Your task to perform on an android device: Search for pizza restaurants on Maps Image 0: 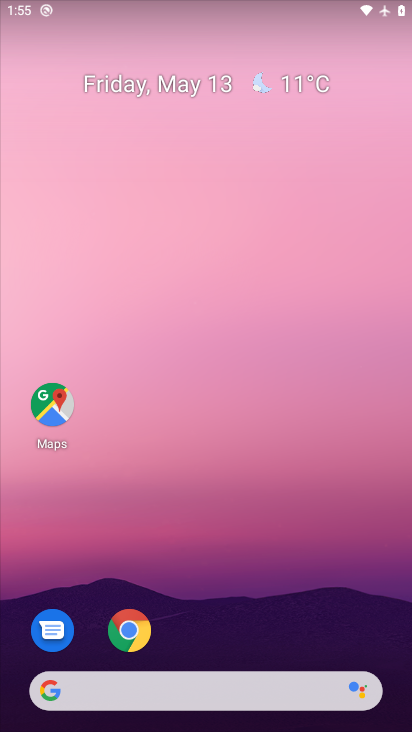
Step 0: drag from (309, 629) to (294, 144)
Your task to perform on an android device: Search for pizza restaurants on Maps Image 1: 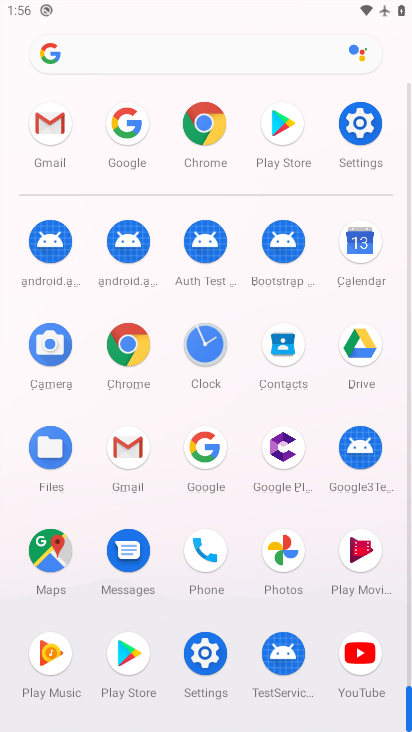
Step 1: click (263, 552)
Your task to perform on an android device: Search for pizza restaurants on Maps Image 2: 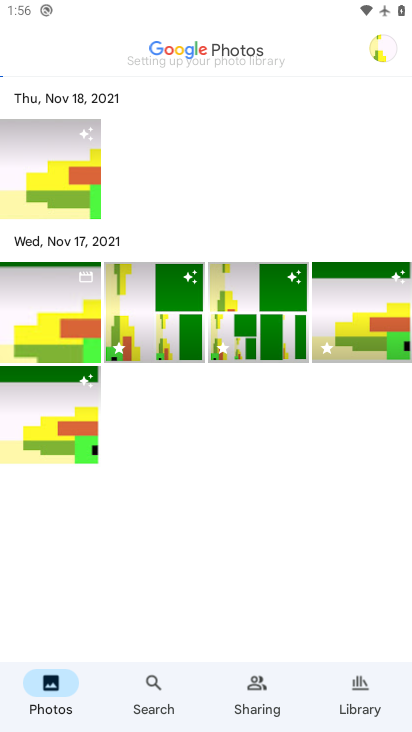
Step 2: click (37, 554)
Your task to perform on an android device: Search for pizza restaurants on Maps Image 3: 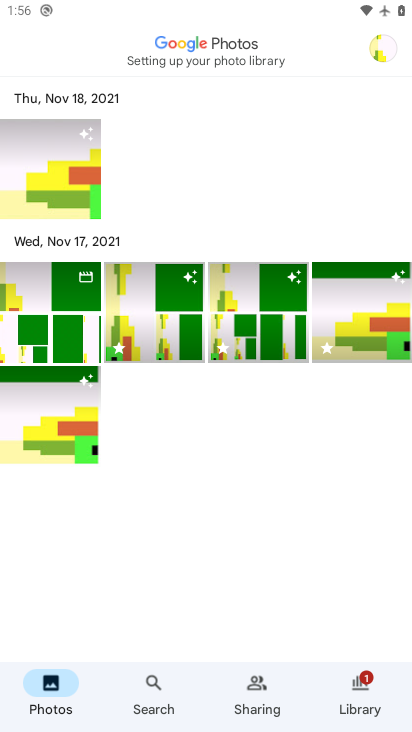
Step 3: press home button
Your task to perform on an android device: Search for pizza restaurants on Maps Image 4: 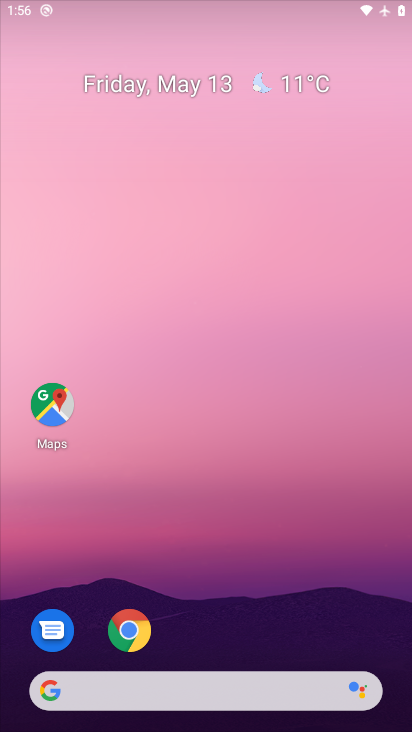
Step 4: drag from (268, 572) to (304, 110)
Your task to perform on an android device: Search for pizza restaurants on Maps Image 5: 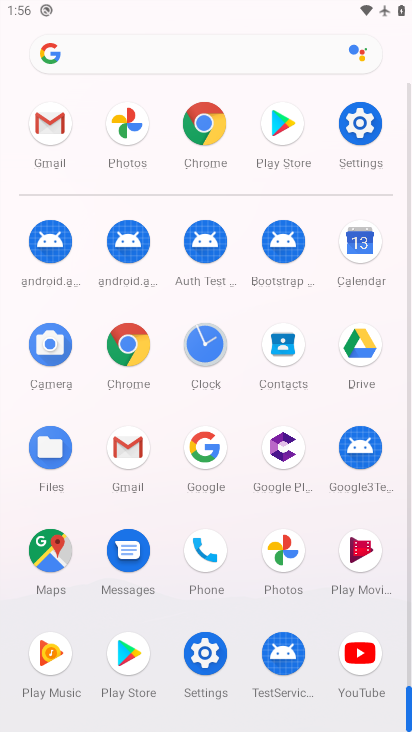
Step 5: click (52, 558)
Your task to perform on an android device: Search for pizza restaurants on Maps Image 6: 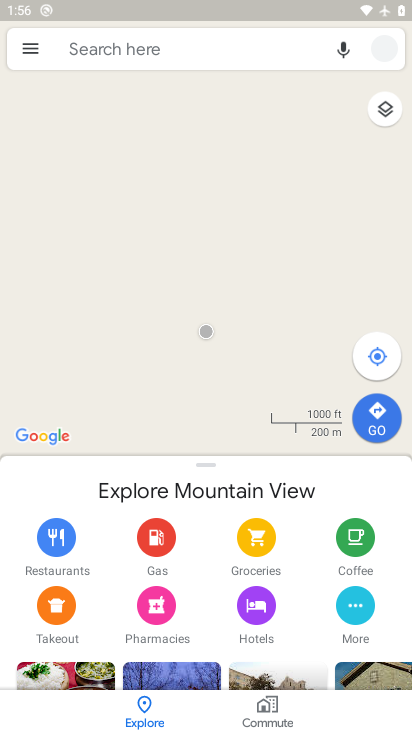
Step 6: click (184, 58)
Your task to perform on an android device: Search for pizza restaurants on Maps Image 7: 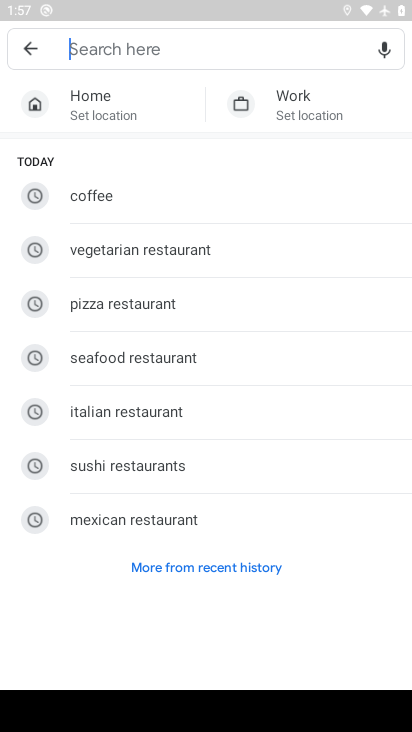
Step 7: click (142, 311)
Your task to perform on an android device: Search for pizza restaurants on Maps Image 8: 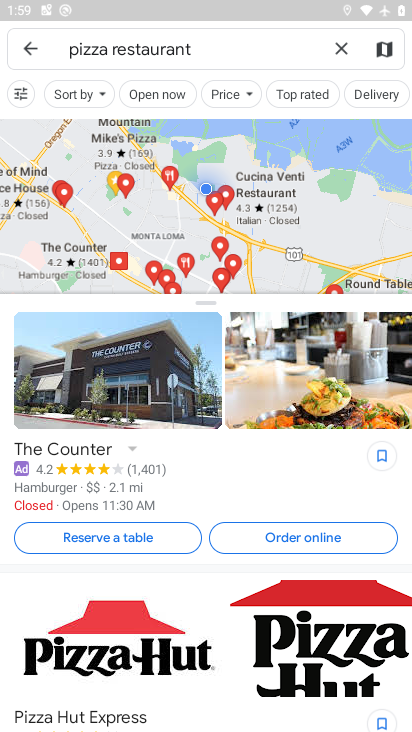
Step 8: task complete